Your task to perform on an android device: open the mobile data screen to see how much data has been used Image 0: 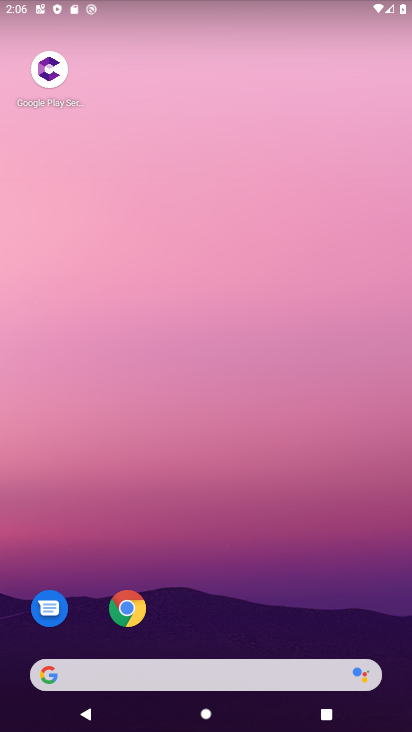
Step 0: drag from (309, 675) to (355, 19)
Your task to perform on an android device: open the mobile data screen to see how much data has been used Image 1: 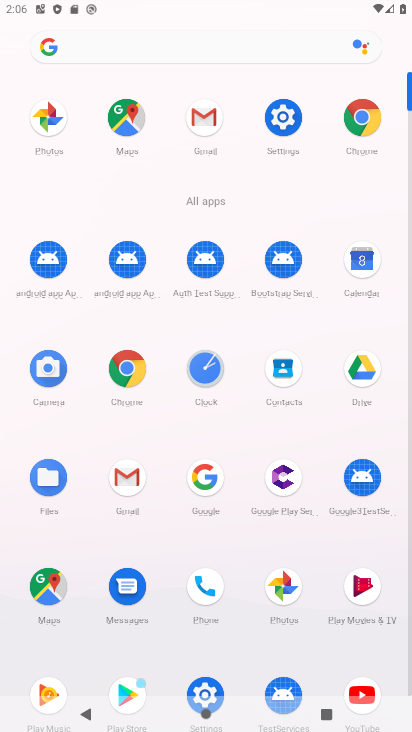
Step 1: click (280, 125)
Your task to perform on an android device: open the mobile data screen to see how much data has been used Image 2: 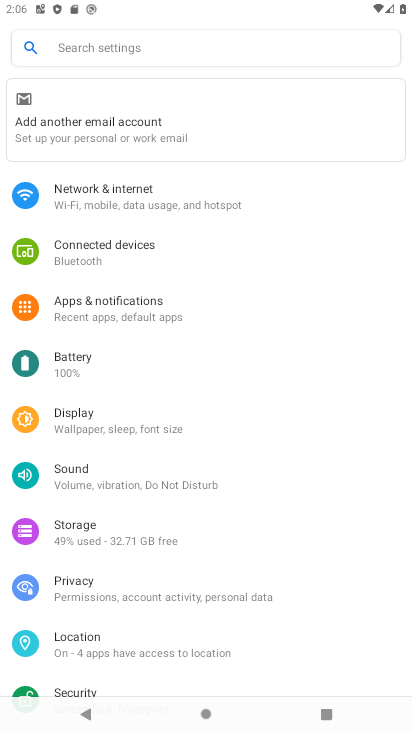
Step 2: click (164, 212)
Your task to perform on an android device: open the mobile data screen to see how much data has been used Image 3: 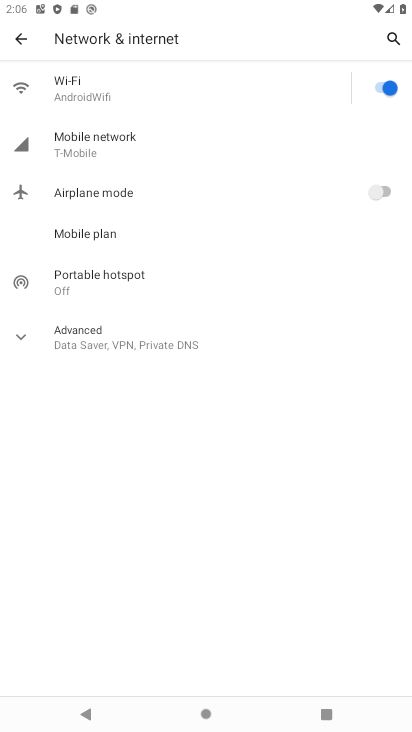
Step 3: click (138, 156)
Your task to perform on an android device: open the mobile data screen to see how much data has been used Image 4: 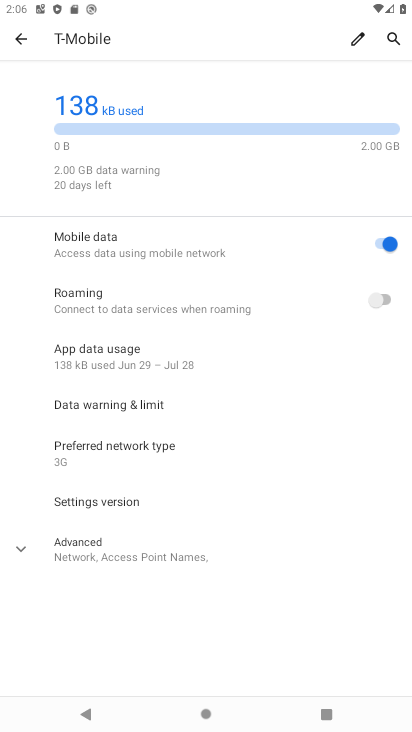
Step 4: task complete